Your task to perform on an android device: Go to notification settings Image 0: 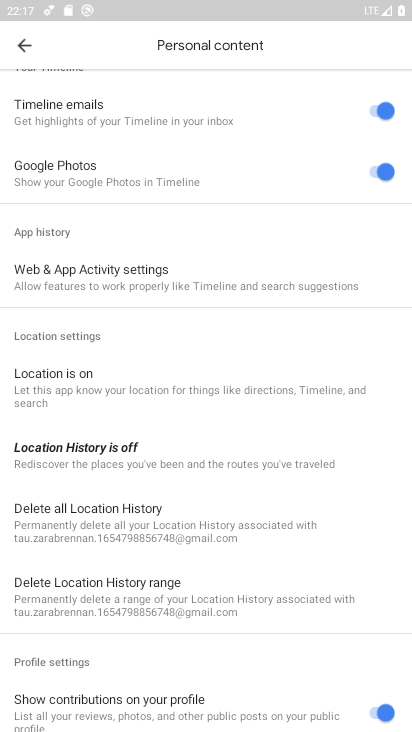
Step 0: press home button
Your task to perform on an android device: Go to notification settings Image 1: 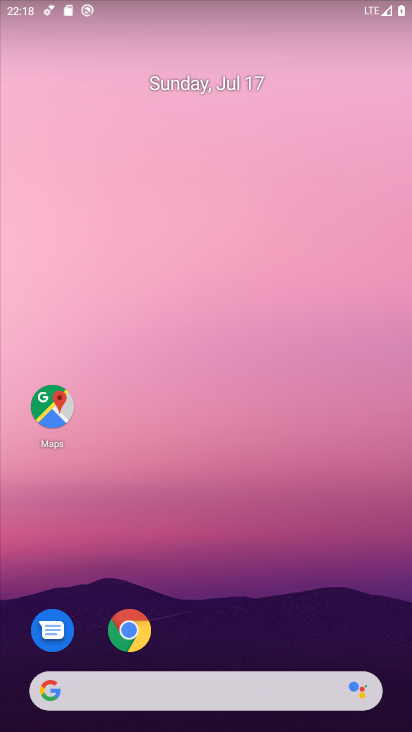
Step 1: drag from (181, 640) to (201, 432)
Your task to perform on an android device: Go to notification settings Image 2: 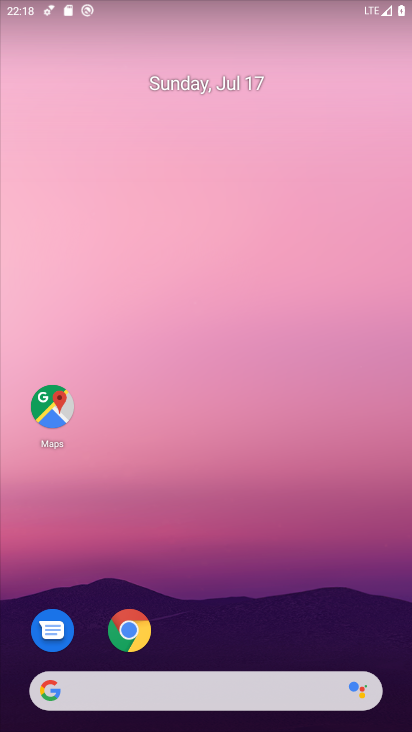
Step 2: drag from (263, 669) to (219, 8)
Your task to perform on an android device: Go to notification settings Image 3: 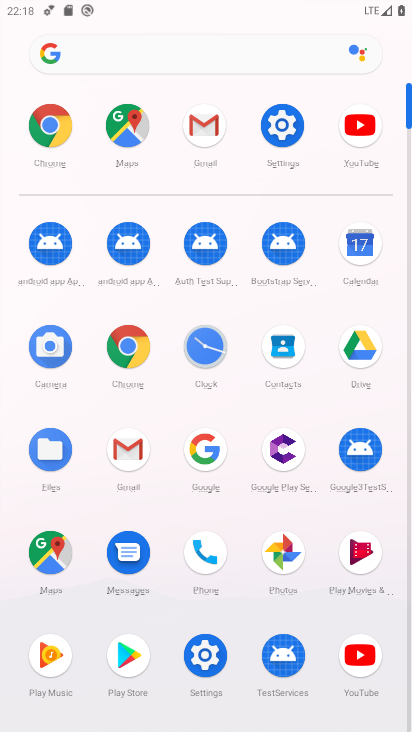
Step 3: click (199, 653)
Your task to perform on an android device: Go to notification settings Image 4: 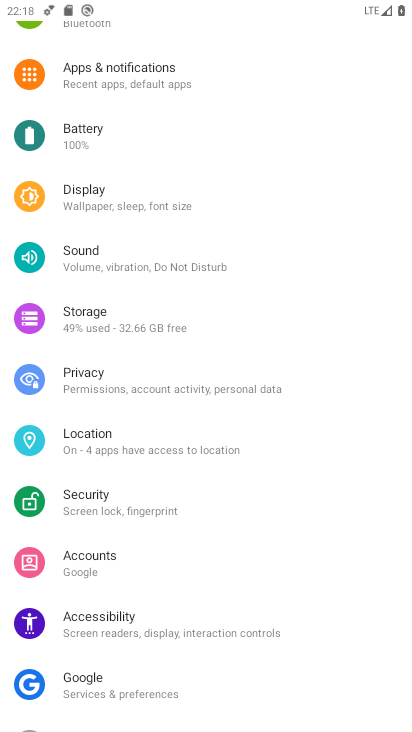
Step 4: click (145, 81)
Your task to perform on an android device: Go to notification settings Image 5: 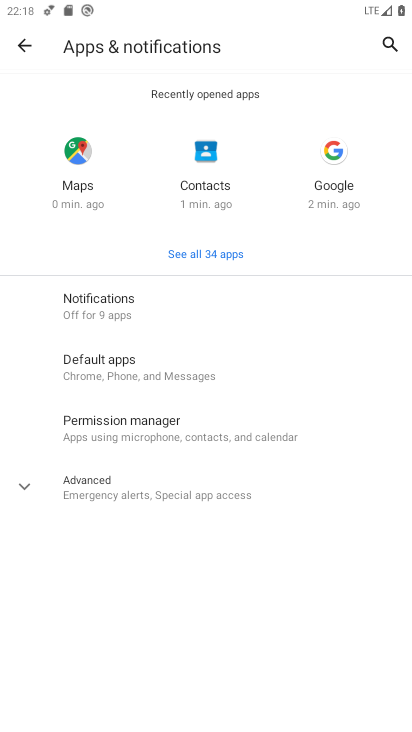
Step 5: click (126, 310)
Your task to perform on an android device: Go to notification settings Image 6: 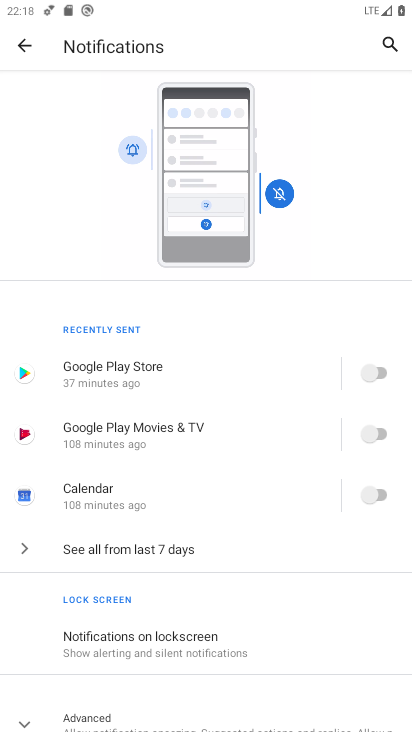
Step 6: task complete